Your task to perform on an android device: toggle javascript in the chrome app Image 0: 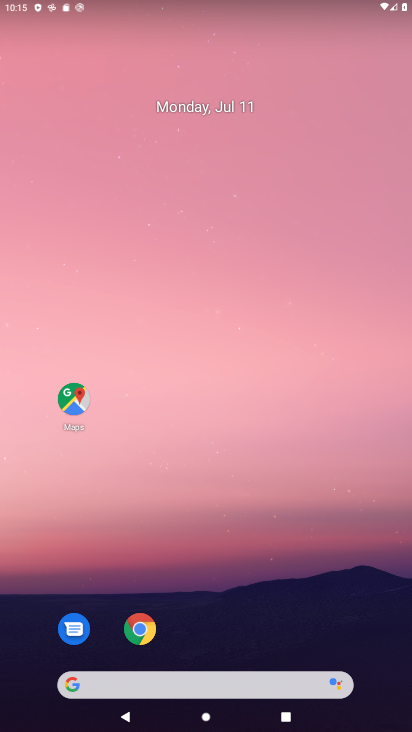
Step 0: click (140, 638)
Your task to perform on an android device: toggle javascript in the chrome app Image 1: 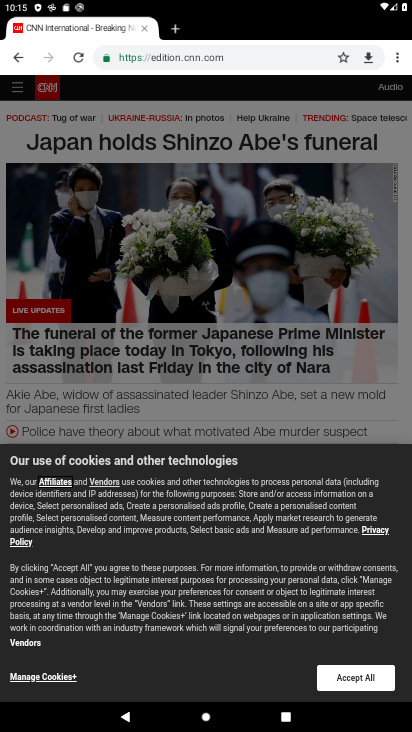
Step 1: click (391, 55)
Your task to perform on an android device: toggle javascript in the chrome app Image 2: 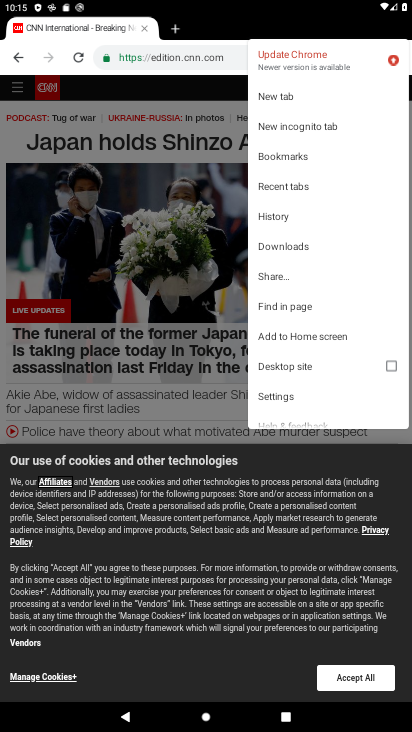
Step 2: click (285, 388)
Your task to perform on an android device: toggle javascript in the chrome app Image 3: 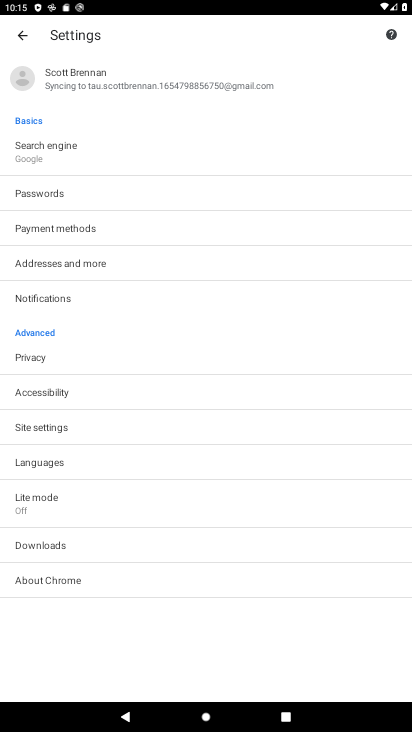
Step 3: click (189, 435)
Your task to perform on an android device: toggle javascript in the chrome app Image 4: 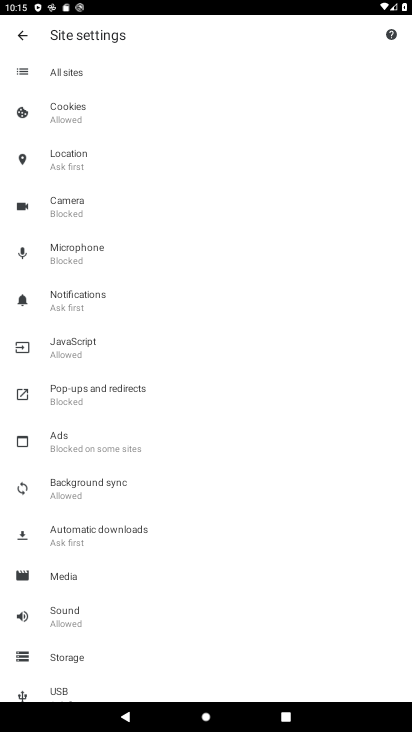
Step 4: click (105, 345)
Your task to perform on an android device: toggle javascript in the chrome app Image 5: 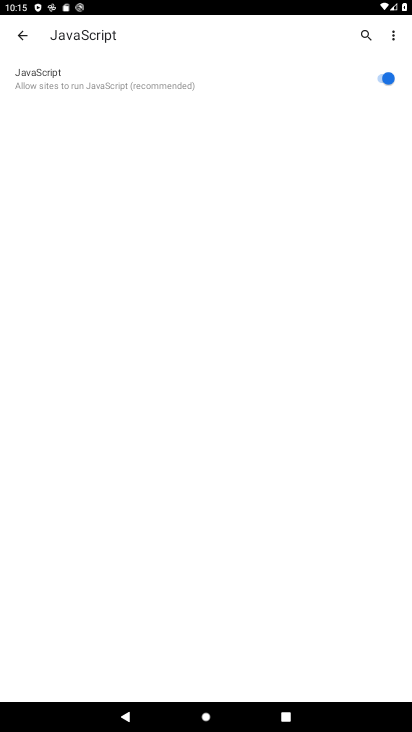
Step 5: click (380, 73)
Your task to perform on an android device: toggle javascript in the chrome app Image 6: 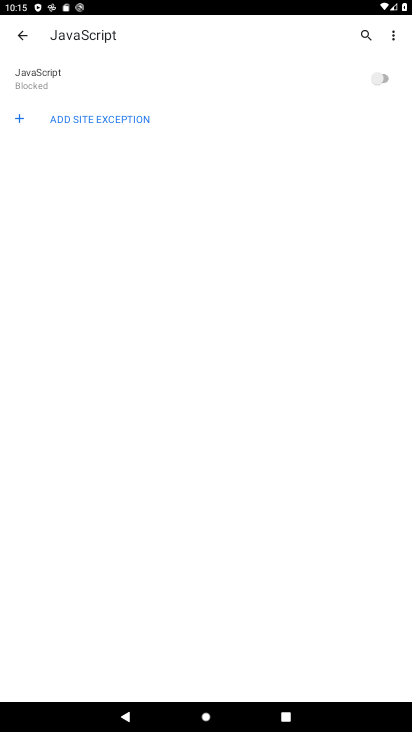
Step 6: task complete